Your task to perform on an android device: toggle pop-ups in chrome Image 0: 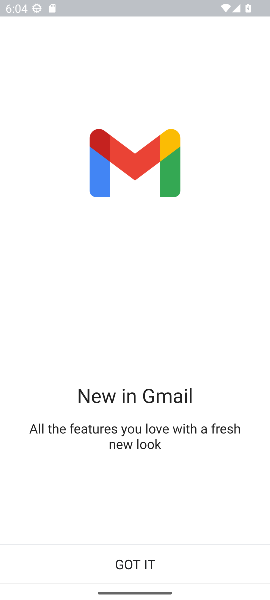
Step 0: press home button
Your task to perform on an android device: toggle pop-ups in chrome Image 1: 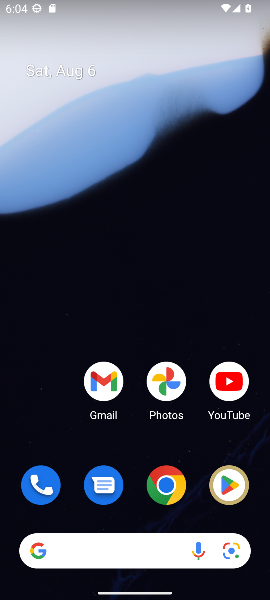
Step 1: click (164, 483)
Your task to perform on an android device: toggle pop-ups in chrome Image 2: 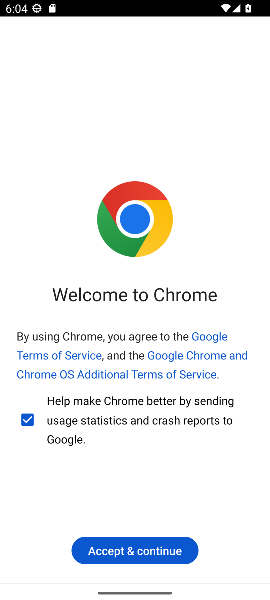
Step 2: click (149, 549)
Your task to perform on an android device: toggle pop-ups in chrome Image 3: 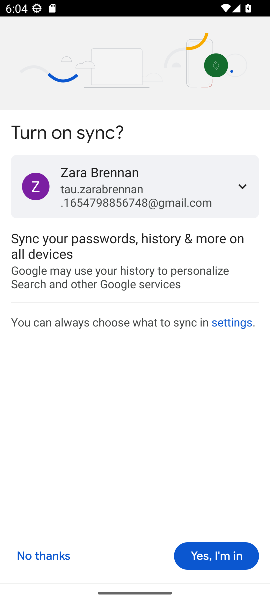
Step 3: click (214, 554)
Your task to perform on an android device: toggle pop-ups in chrome Image 4: 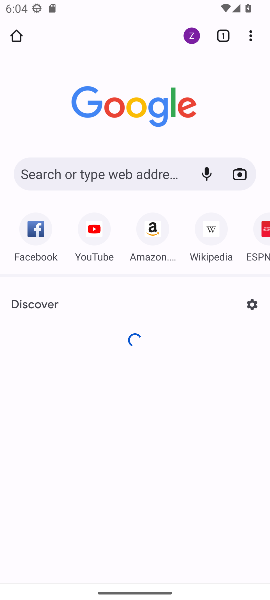
Step 4: click (253, 35)
Your task to perform on an android device: toggle pop-ups in chrome Image 5: 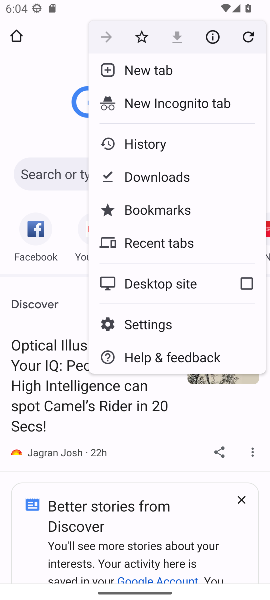
Step 5: click (143, 321)
Your task to perform on an android device: toggle pop-ups in chrome Image 6: 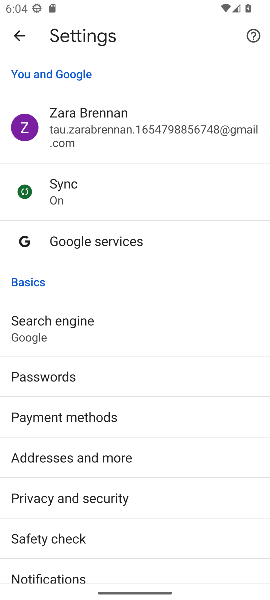
Step 6: drag from (135, 568) to (158, 228)
Your task to perform on an android device: toggle pop-ups in chrome Image 7: 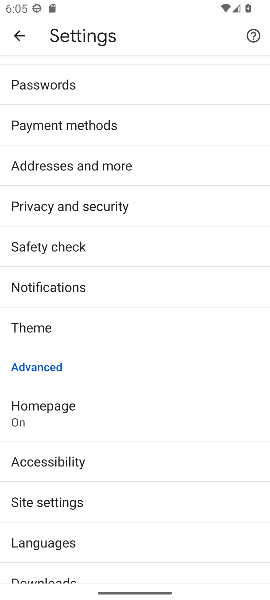
Step 7: click (52, 494)
Your task to perform on an android device: toggle pop-ups in chrome Image 8: 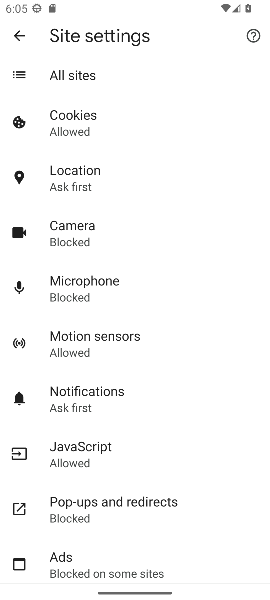
Step 8: click (89, 501)
Your task to perform on an android device: toggle pop-ups in chrome Image 9: 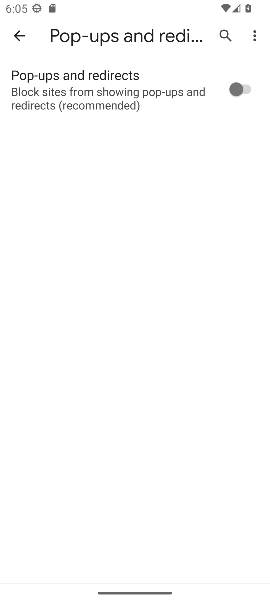
Step 9: click (234, 85)
Your task to perform on an android device: toggle pop-ups in chrome Image 10: 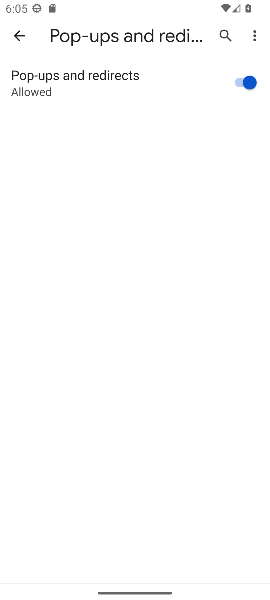
Step 10: task complete